Your task to perform on an android device: Search for hotels in Paris Image 0: 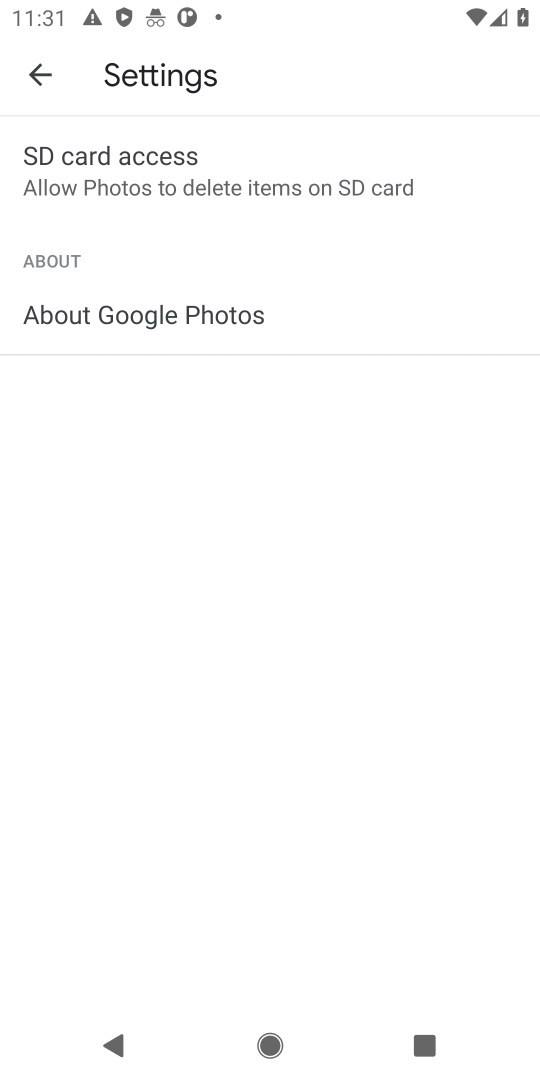
Step 0: press home button
Your task to perform on an android device: Search for hotels in Paris Image 1: 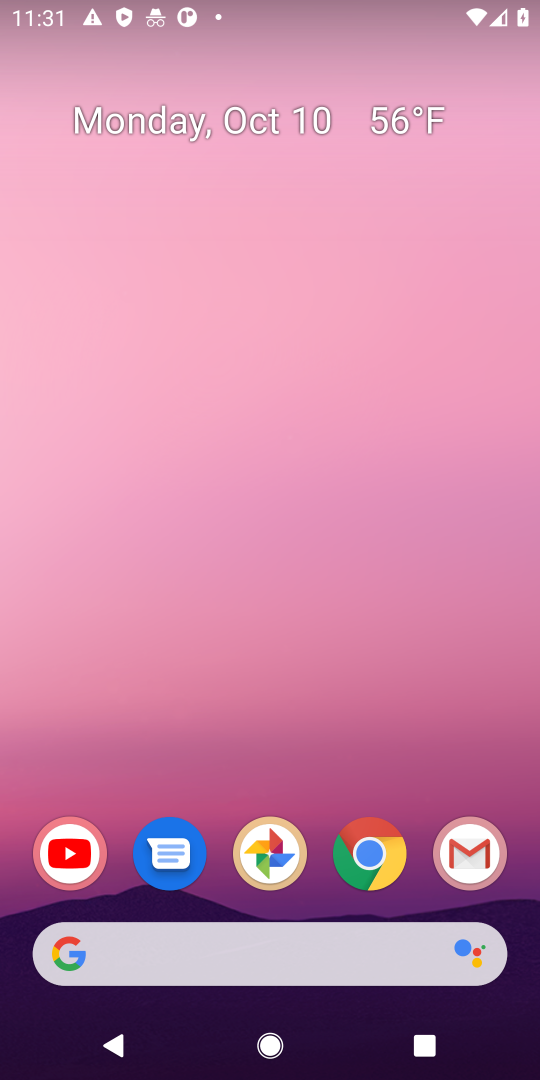
Step 1: click (370, 862)
Your task to perform on an android device: Search for hotels in Paris Image 2: 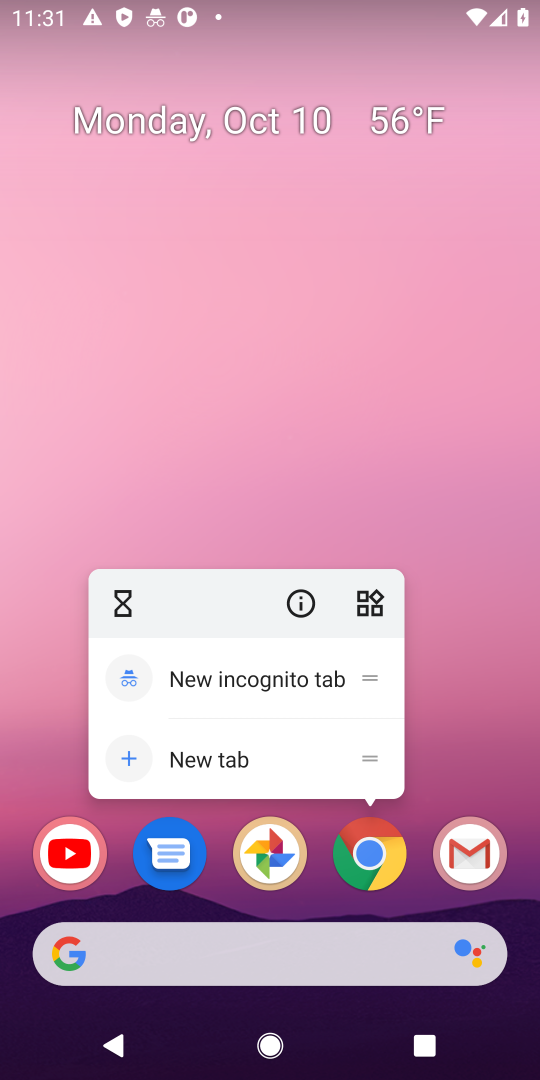
Step 2: click (458, 754)
Your task to perform on an android device: Search for hotels in Paris Image 3: 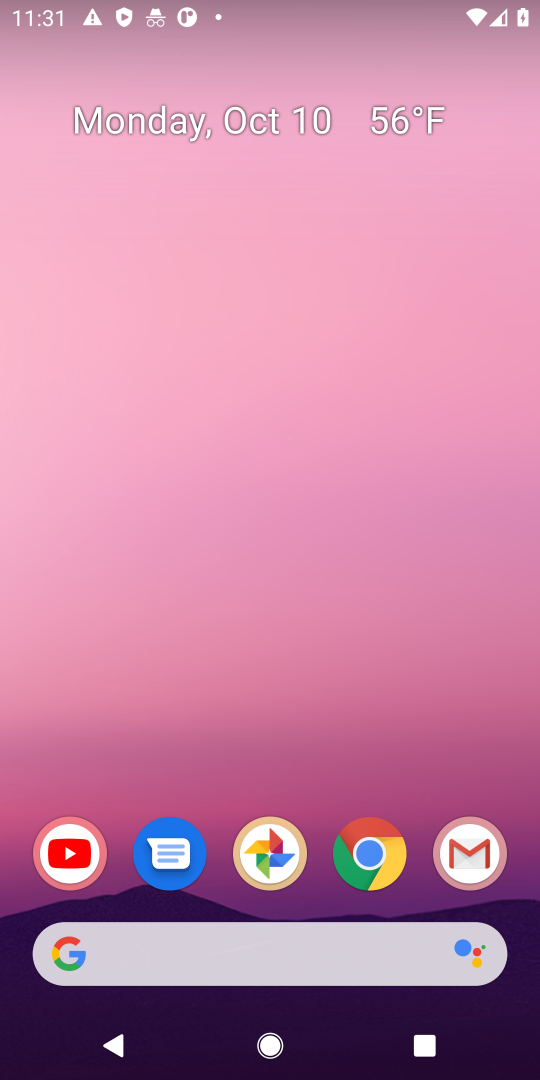
Step 3: drag from (428, 788) to (521, 588)
Your task to perform on an android device: Search for hotels in Paris Image 4: 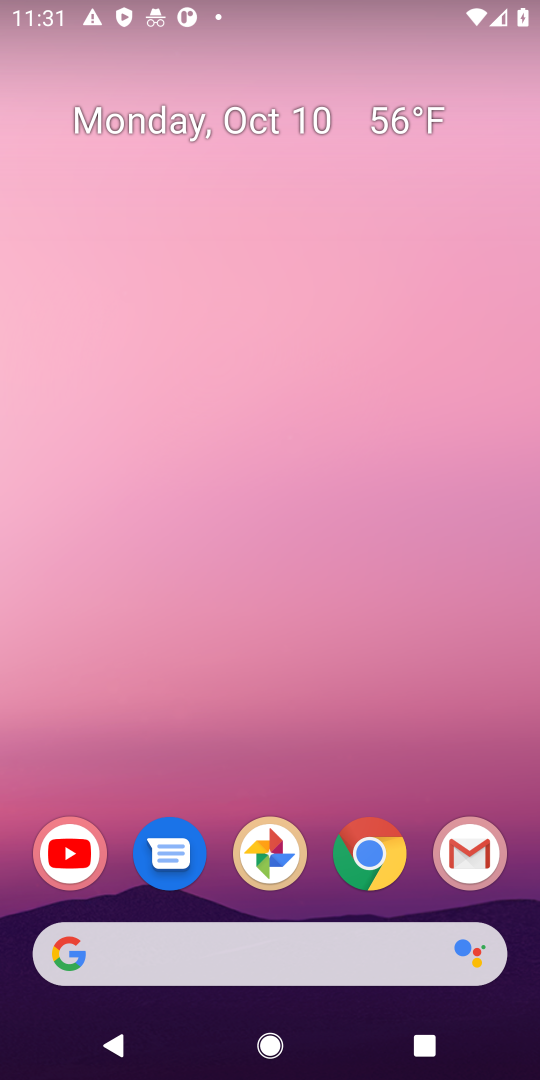
Step 4: drag from (283, 784) to (100, 42)
Your task to perform on an android device: Search for hotels in Paris Image 5: 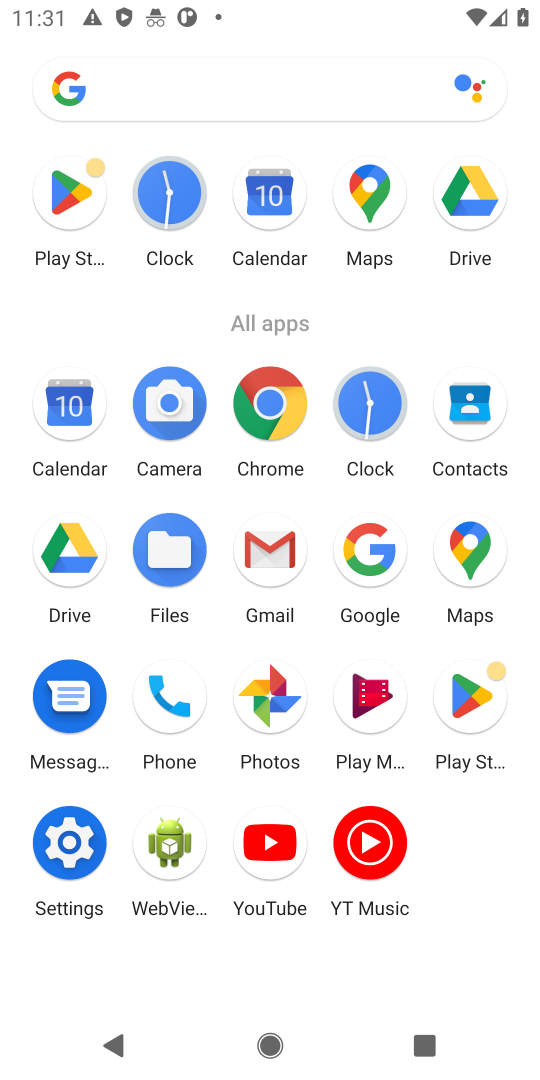
Step 5: click (262, 405)
Your task to perform on an android device: Search for hotels in Paris Image 6: 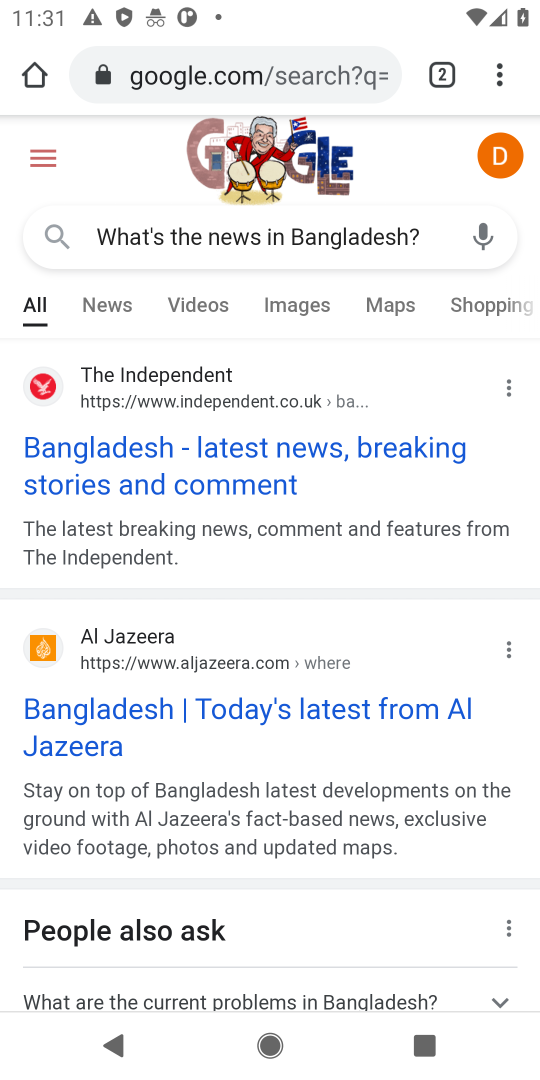
Step 6: click (220, 75)
Your task to perform on an android device: Search for hotels in Paris Image 7: 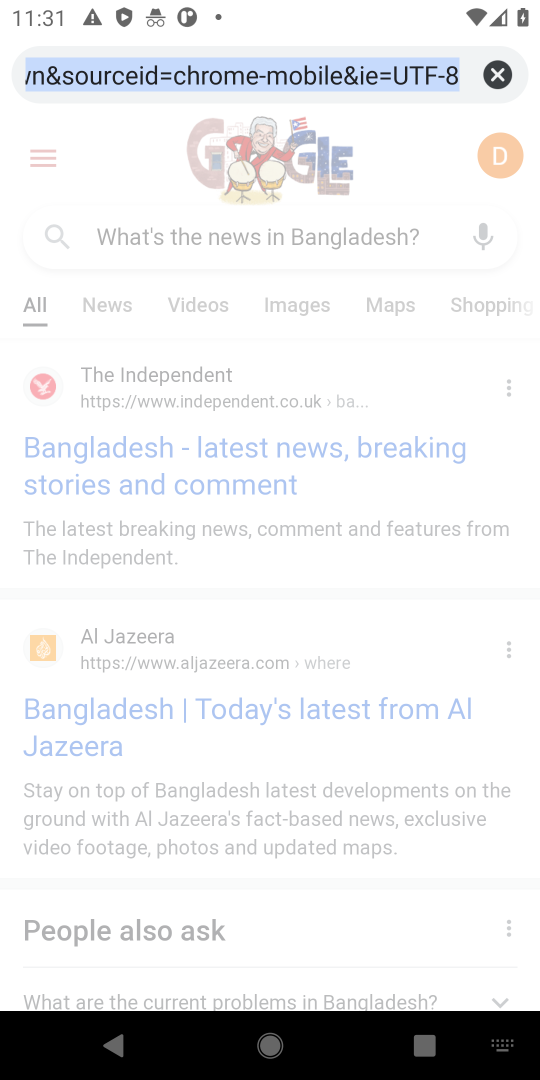
Step 7: click (496, 65)
Your task to perform on an android device: Search for hotels in Paris Image 8: 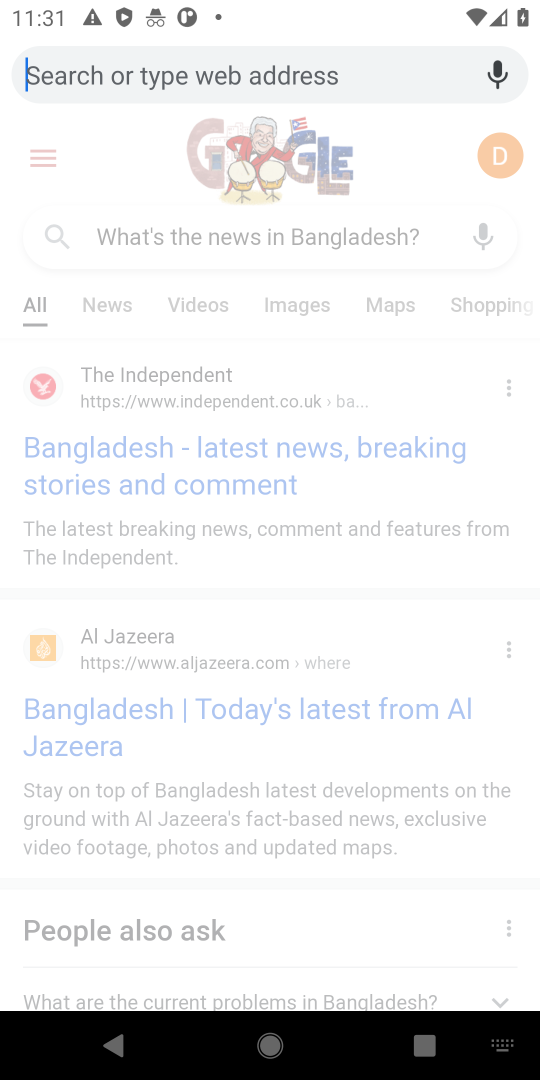
Step 8: type "Search for hotels in Paris"
Your task to perform on an android device: Search for hotels in Paris Image 9: 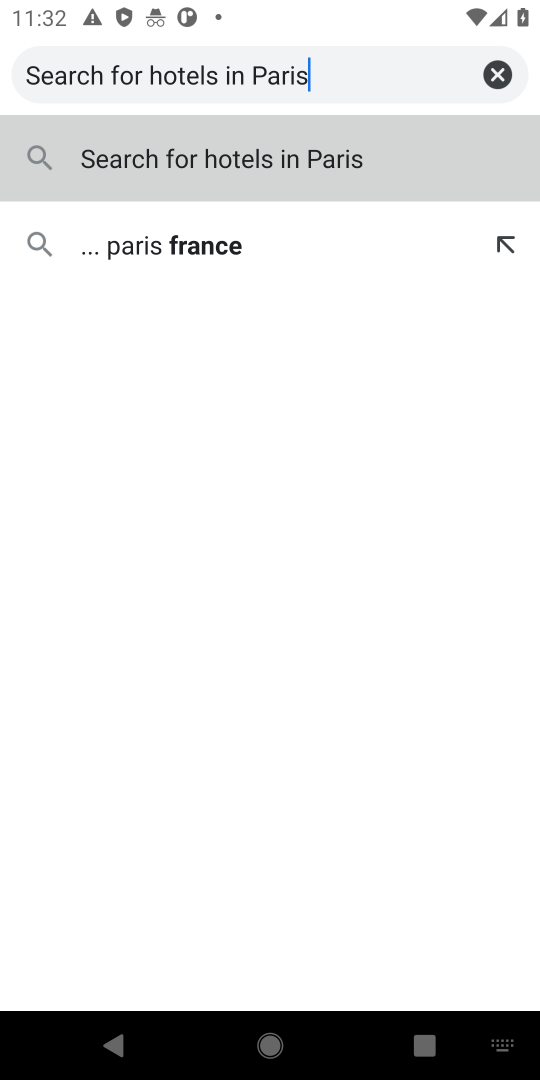
Step 9: click (284, 142)
Your task to perform on an android device: Search for hotels in Paris Image 10: 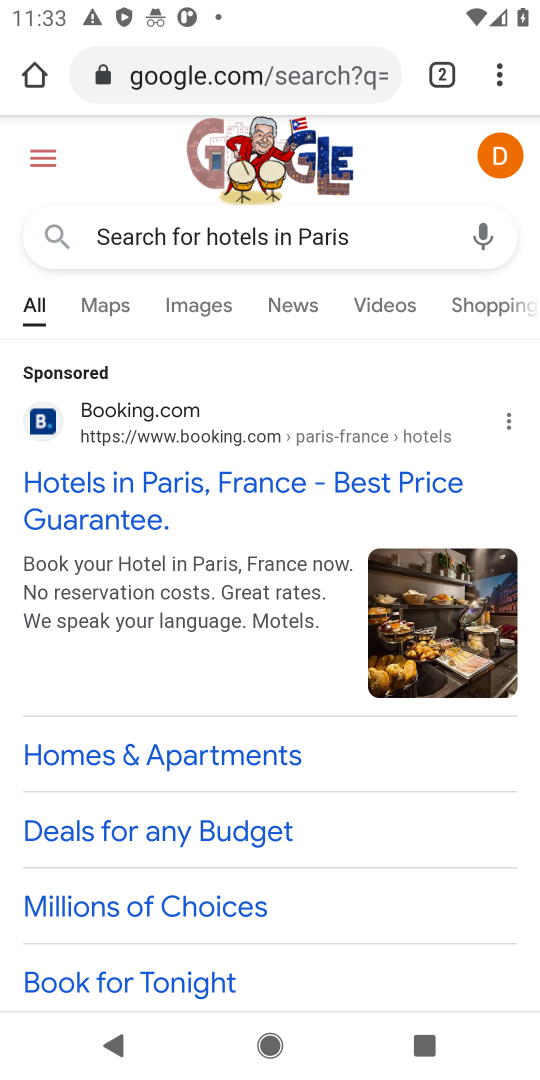
Step 10: task complete